Your task to perform on an android device: turn on javascript in the chrome app Image 0: 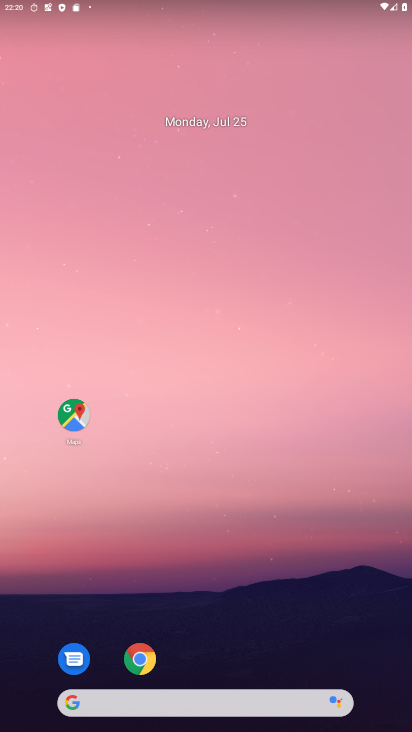
Step 0: click (144, 661)
Your task to perform on an android device: turn on javascript in the chrome app Image 1: 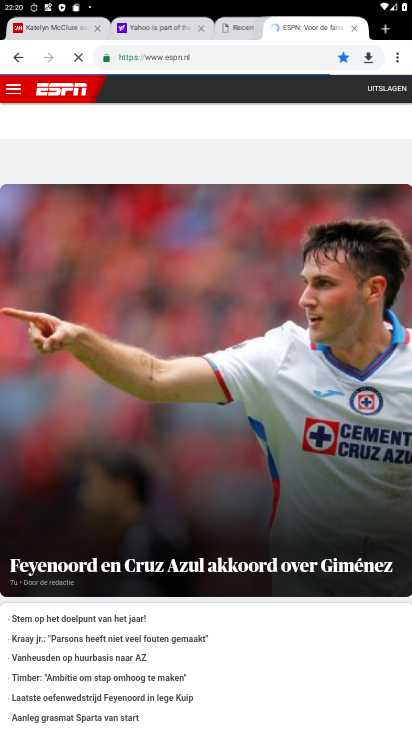
Step 1: click (392, 50)
Your task to perform on an android device: turn on javascript in the chrome app Image 2: 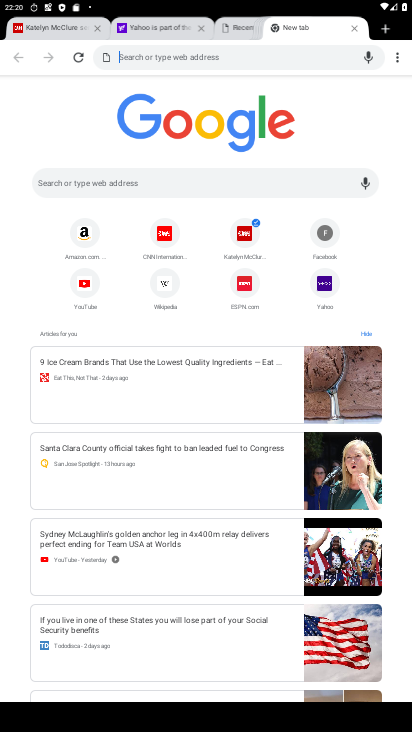
Step 2: drag from (402, 61) to (294, 268)
Your task to perform on an android device: turn on javascript in the chrome app Image 3: 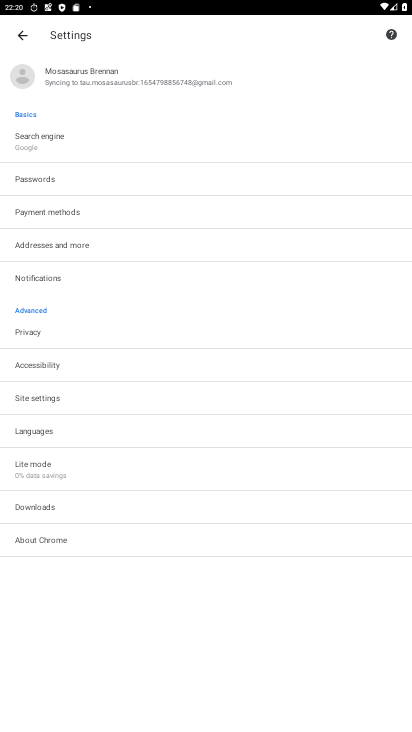
Step 3: click (76, 403)
Your task to perform on an android device: turn on javascript in the chrome app Image 4: 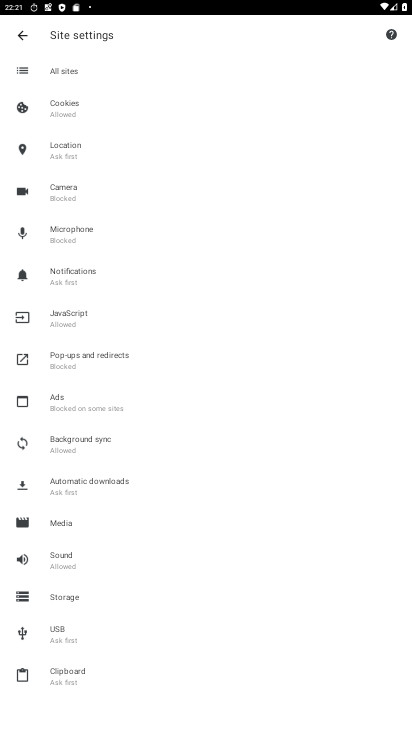
Step 4: click (88, 328)
Your task to perform on an android device: turn on javascript in the chrome app Image 5: 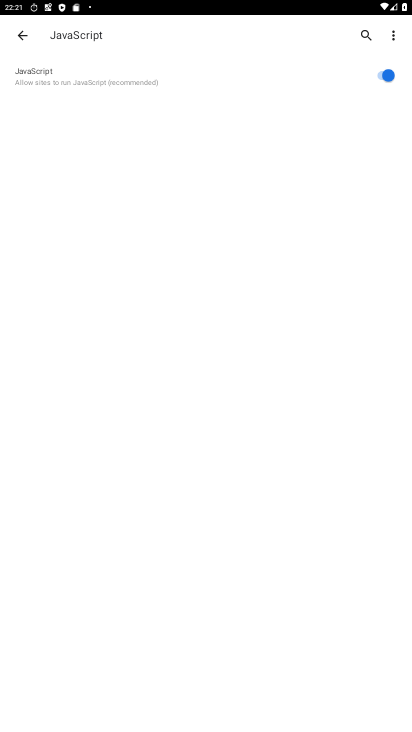
Step 5: task complete